Your task to perform on an android device: allow notifications from all sites in the chrome app Image 0: 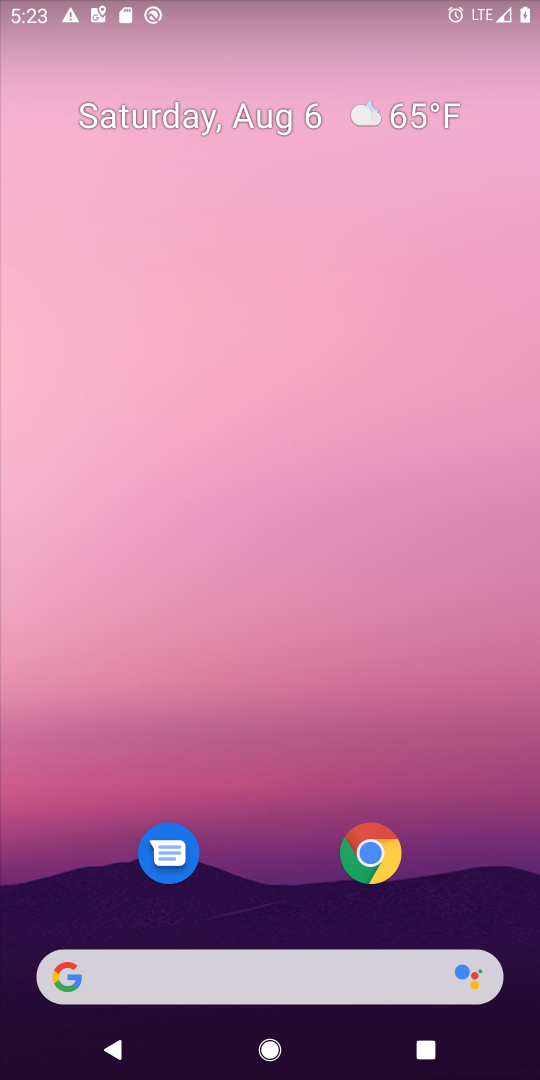
Step 0: click (372, 865)
Your task to perform on an android device: allow notifications from all sites in the chrome app Image 1: 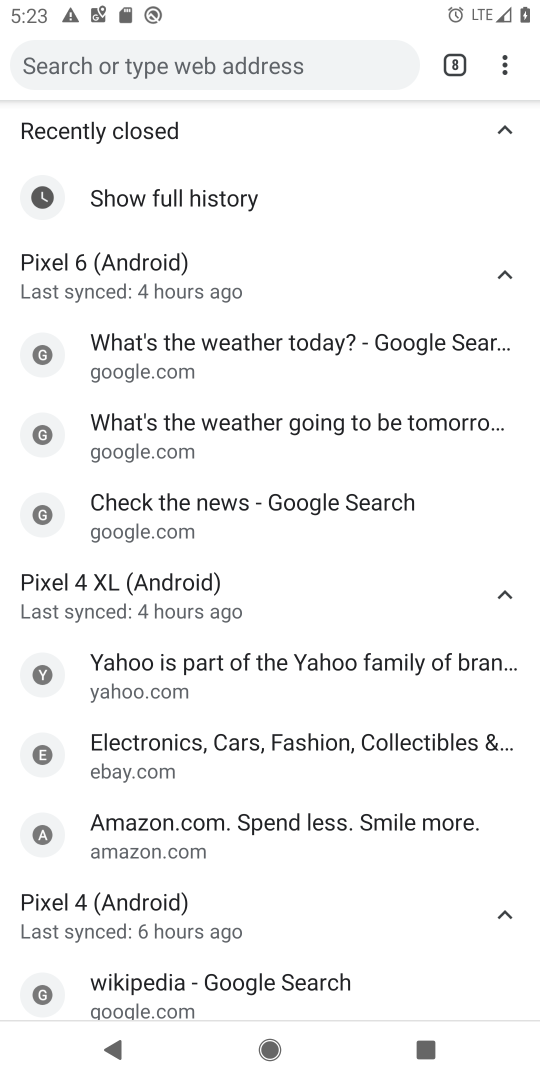
Step 1: drag from (506, 64) to (267, 540)
Your task to perform on an android device: allow notifications from all sites in the chrome app Image 2: 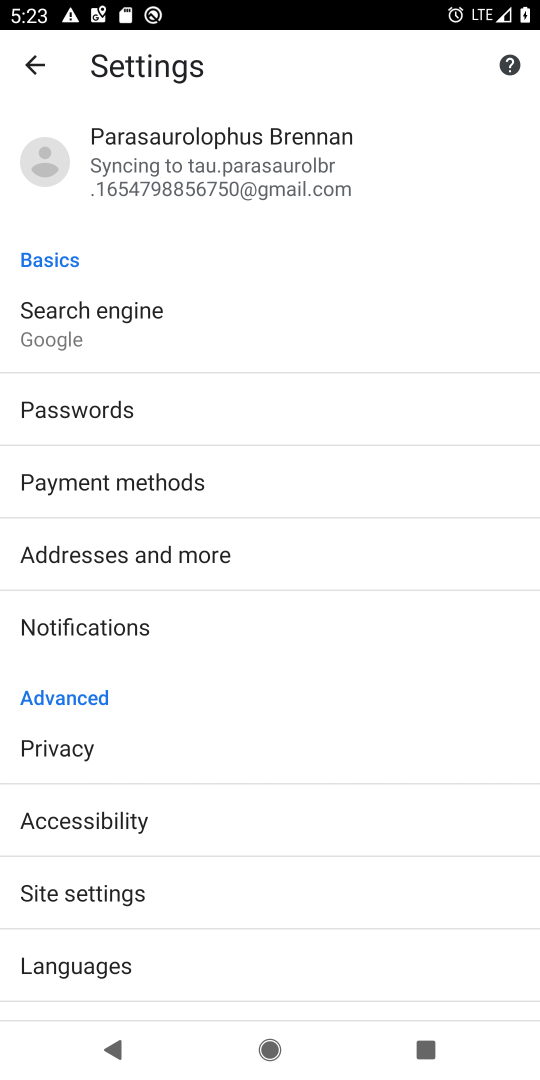
Step 2: click (157, 898)
Your task to perform on an android device: allow notifications from all sites in the chrome app Image 3: 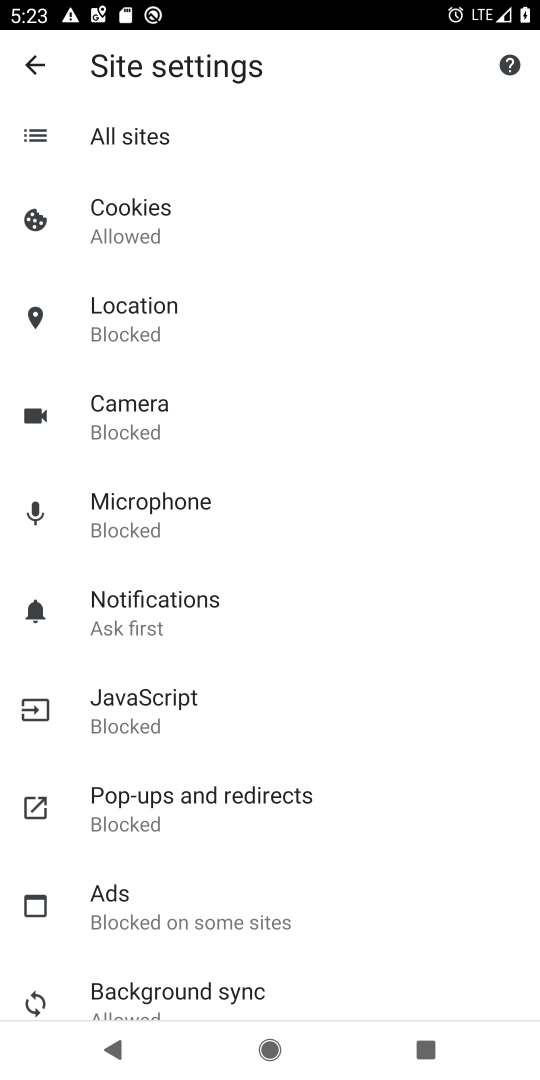
Step 3: click (177, 596)
Your task to perform on an android device: allow notifications from all sites in the chrome app Image 4: 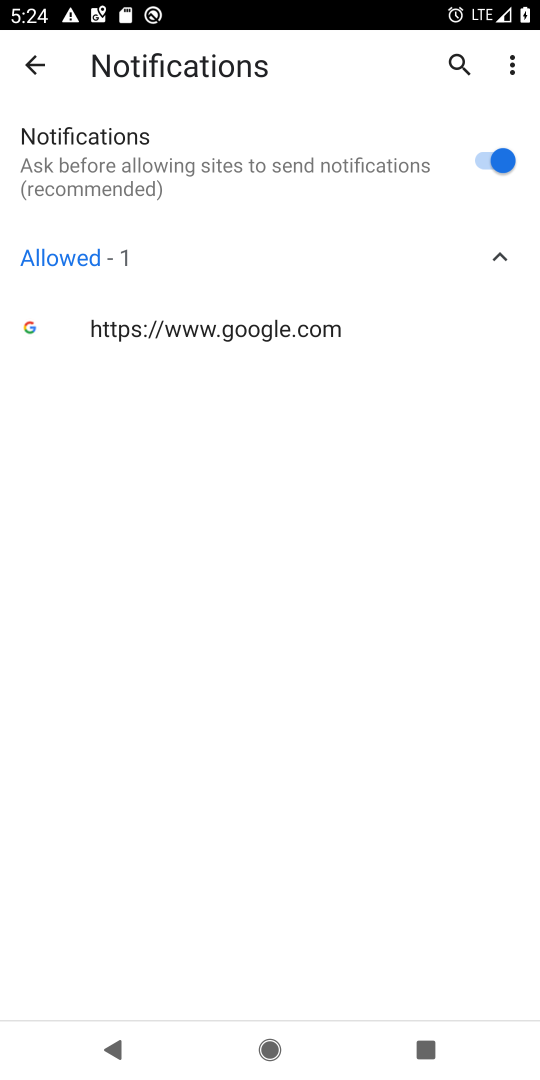
Step 4: task complete